Your task to perform on an android device: Open notification settings Image 0: 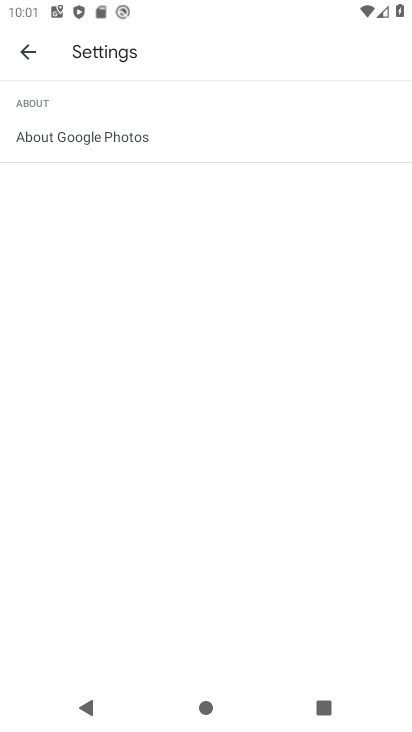
Step 0: press home button
Your task to perform on an android device: Open notification settings Image 1: 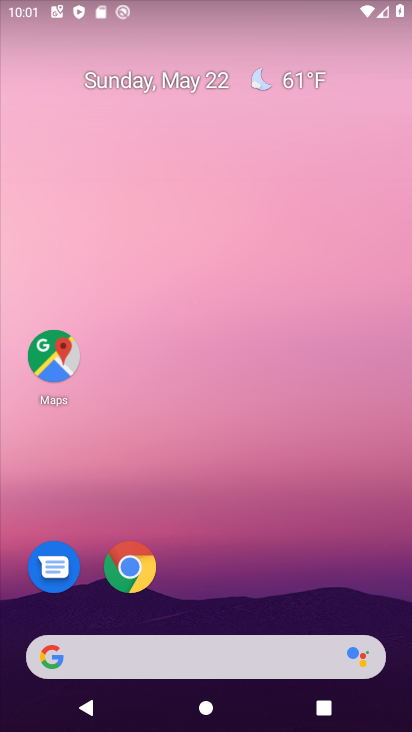
Step 1: drag from (232, 651) to (235, 17)
Your task to perform on an android device: Open notification settings Image 2: 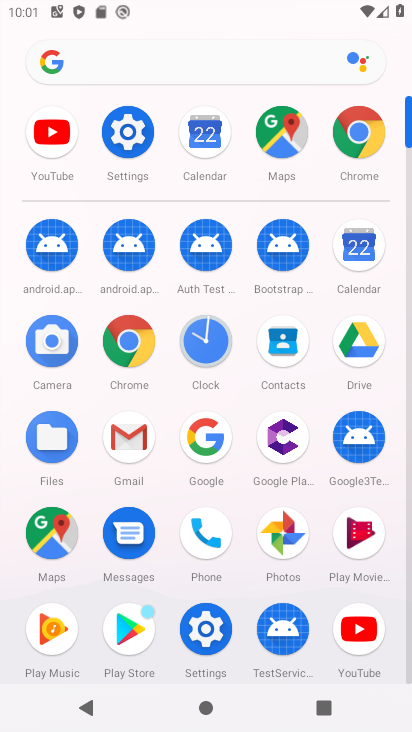
Step 2: click (109, 146)
Your task to perform on an android device: Open notification settings Image 3: 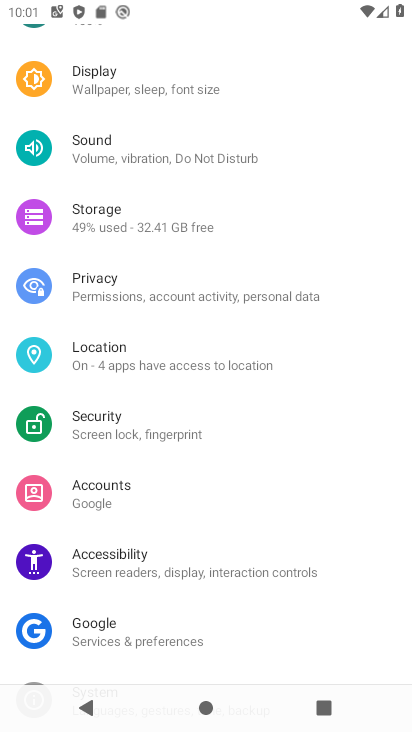
Step 3: drag from (160, 250) to (126, 614)
Your task to perform on an android device: Open notification settings Image 4: 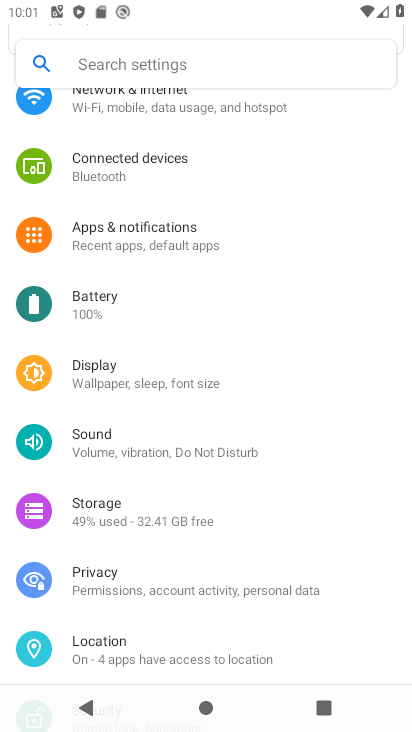
Step 4: click (82, 223)
Your task to perform on an android device: Open notification settings Image 5: 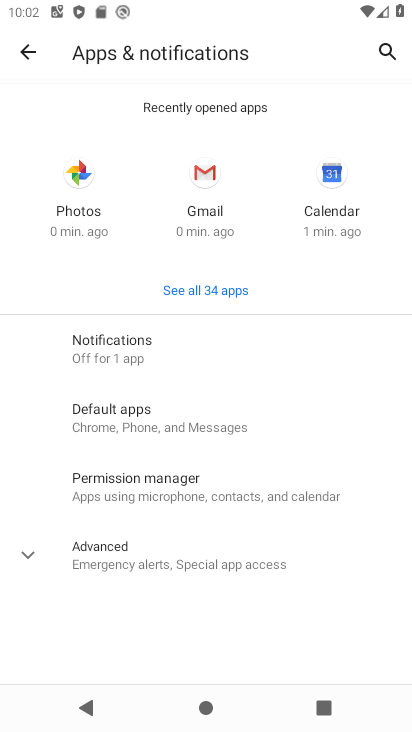
Step 5: click (157, 338)
Your task to perform on an android device: Open notification settings Image 6: 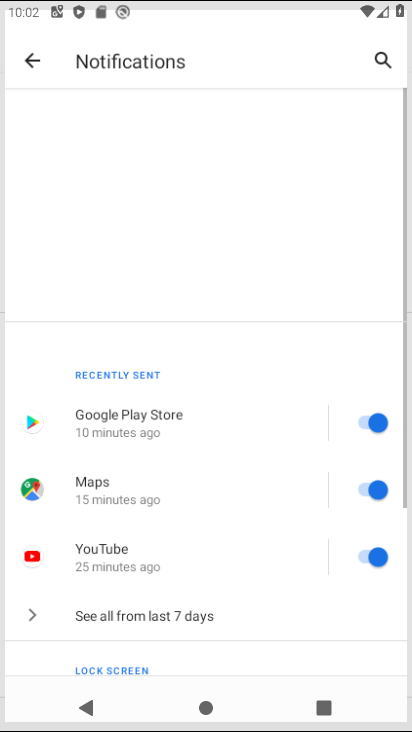
Step 6: task complete